Your task to perform on an android device: open app "VLC for Android" (install if not already installed) Image 0: 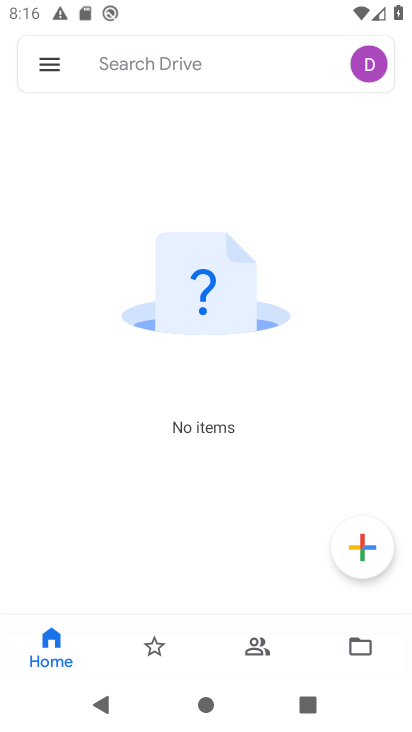
Step 0: press home button
Your task to perform on an android device: open app "VLC for Android" (install if not already installed) Image 1: 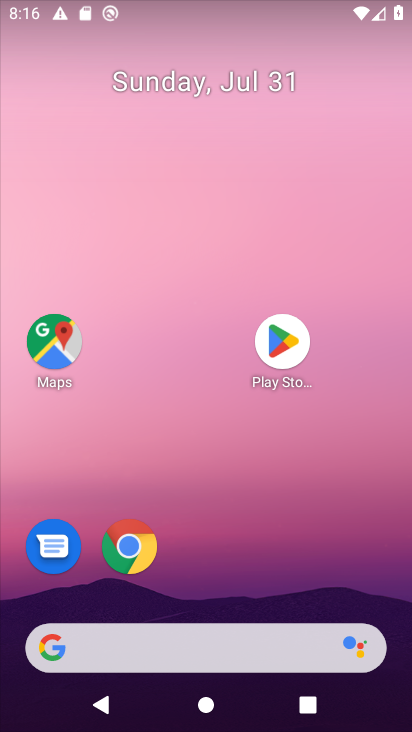
Step 1: click (279, 337)
Your task to perform on an android device: open app "VLC for Android" (install if not already installed) Image 2: 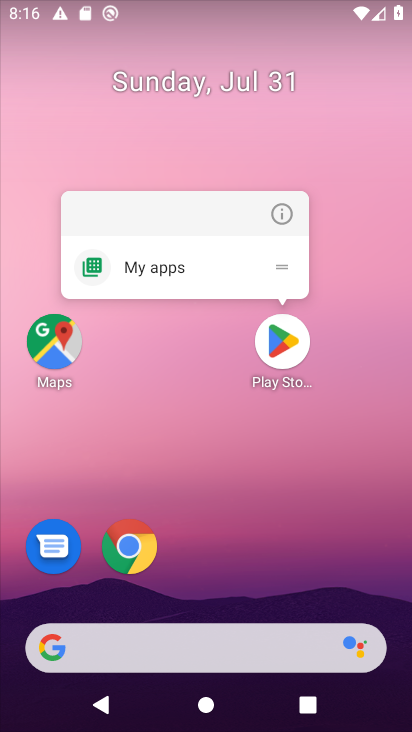
Step 2: click (283, 345)
Your task to perform on an android device: open app "VLC for Android" (install if not already installed) Image 3: 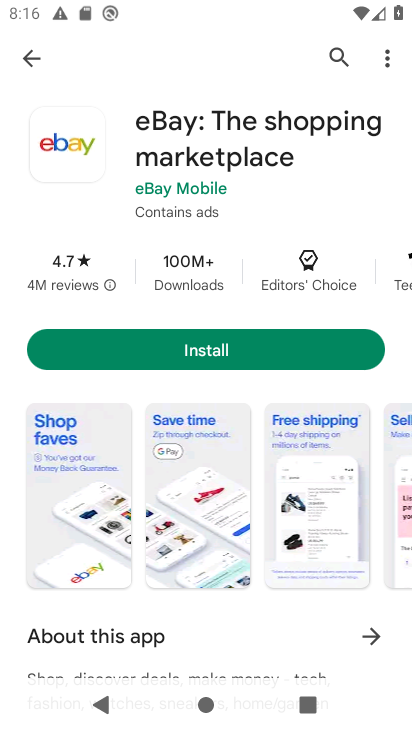
Step 3: click (336, 61)
Your task to perform on an android device: open app "VLC for Android" (install if not already installed) Image 4: 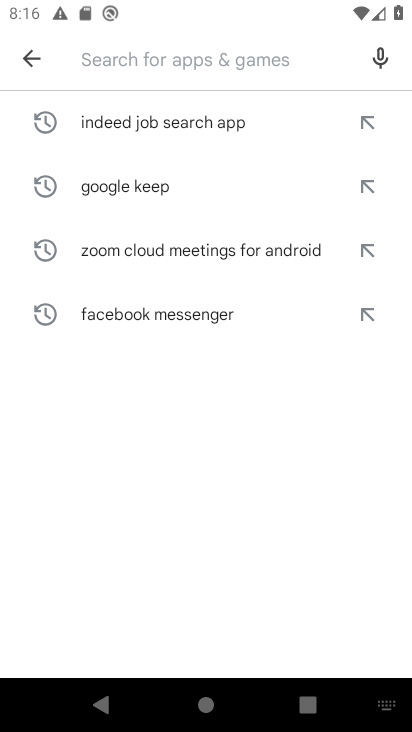
Step 4: type "VLC for Android"
Your task to perform on an android device: open app "VLC for Android" (install if not already installed) Image 5: 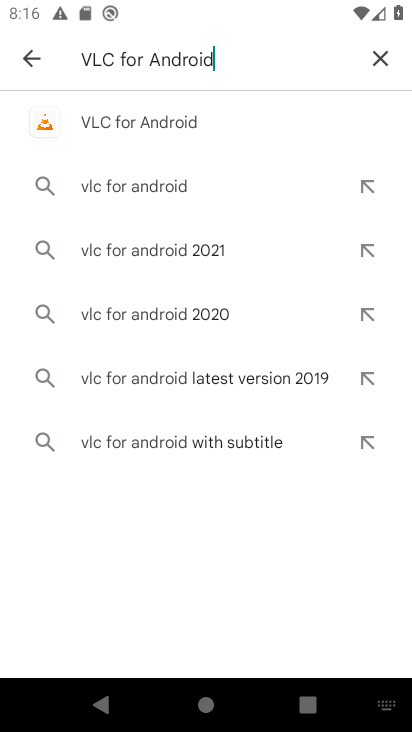
Step 5: click (165, 121)
Your task to perform on an android device: open app "VLC for Android" (install if not already installed) Image 6: 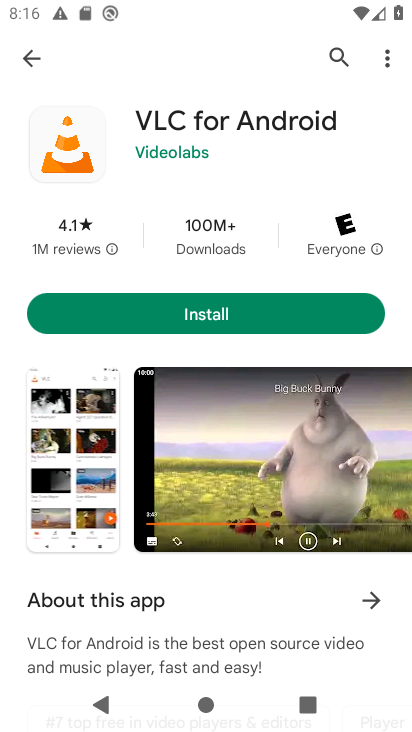
Step 6: click (193, 314)
Your task to perform on an android device: open app "VLC for Android" (install if not already installed) Image 7: 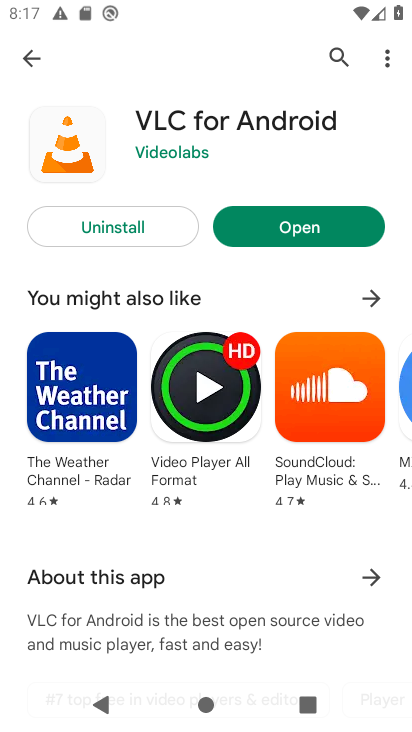
Step 7: click (294, 225)
Your task to perform on an android device: open app "VLC for Android" (install if not already installed) Image 8: 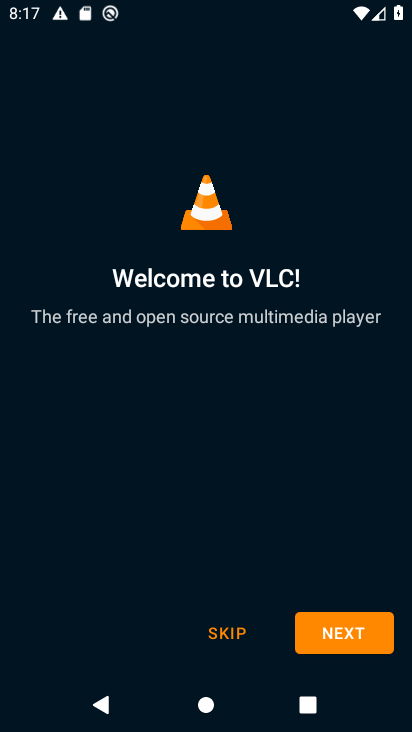
Step 8: task complete